Your task to perform on an android device: check the backup settings in the google photos Image 0: 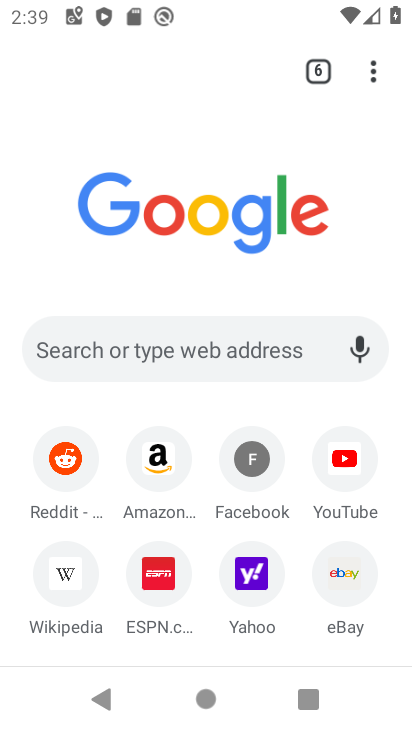
Step 0: press home button
Your task to perform on an android device: check the backup settings in the google photos Image 1: 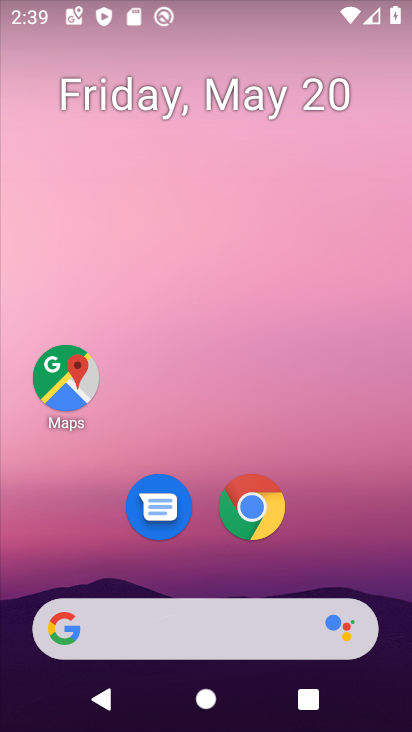
Step 1: drag from (228, 722) to (217, 110)
Your task to perform on an android device: check the backup settings in the google photos Image 2: 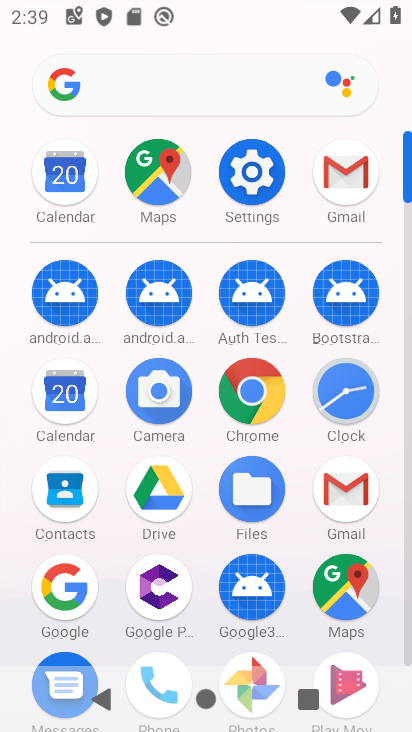
Step 2: drag from (212, 631) to (212, 258)
Your task to perform on an android device: check the backup settings in the google photos Image 3: 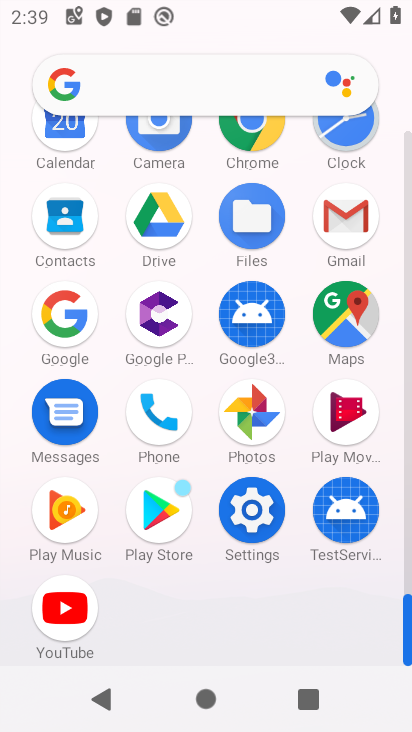
Step 3: click (253, 420)
Your task to perform on an android device: check the backup settings in the google photos Image 4: 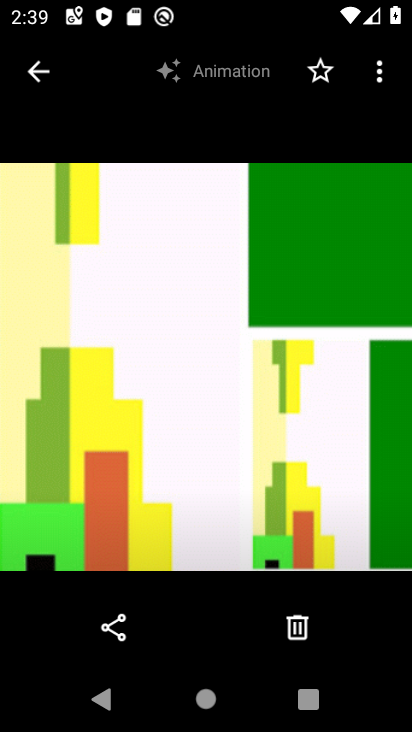
Step 4: click (39, 68)
Your task to perform on an android device: check the backup settings in the google photos Image 5: 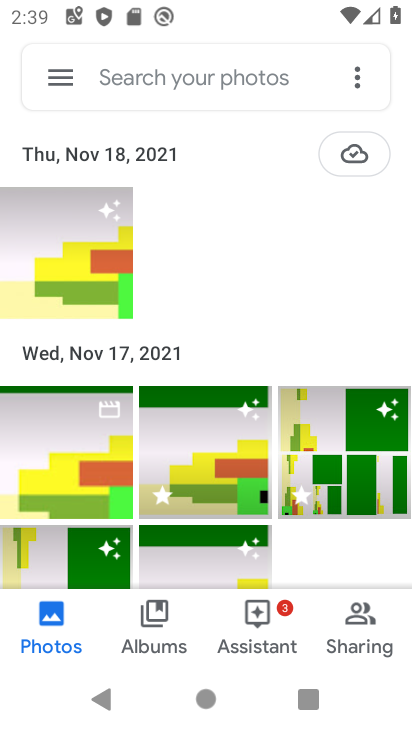
Step 5: click (61, 74)
Your task to perform on an android device: check the backup settings in the google photos Image 6: 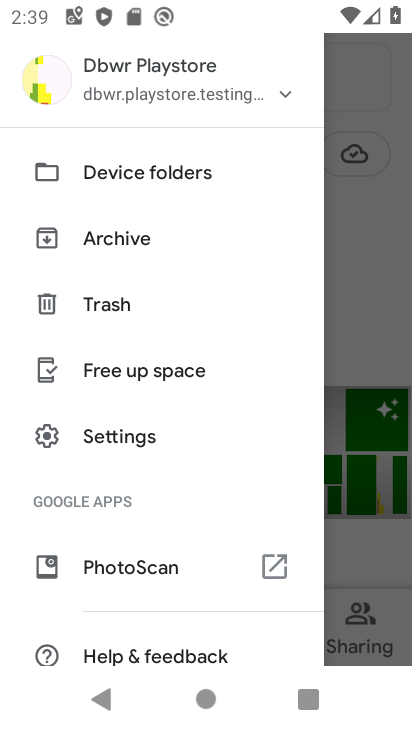
Step 6: click (128, 435)
Your task to perform on an android device: check the backup settings in the google photos Image 7: 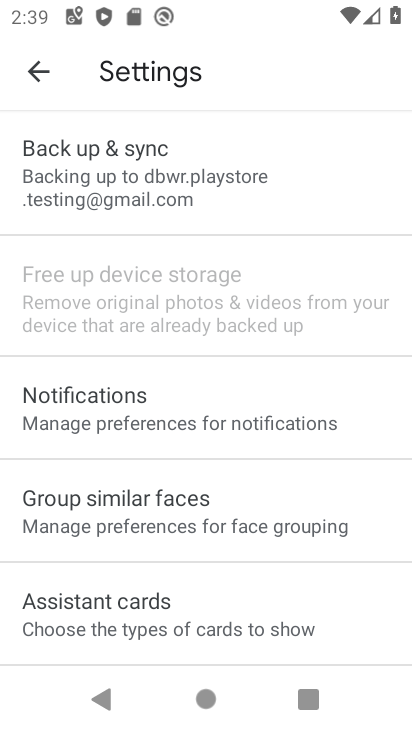
Step 7: click (62, 155)
Your task to perform on an android device: check the backup settings in the google photos Image 8: 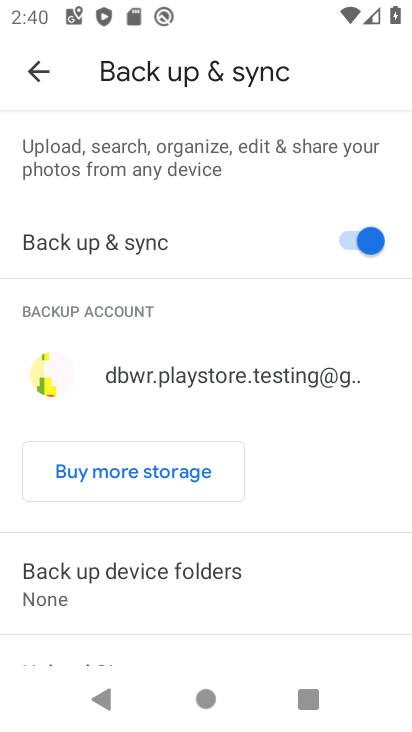
Step 8: task complete